Your task to perform on an android device: Search for Mexican restaurants on Maps Image 0: 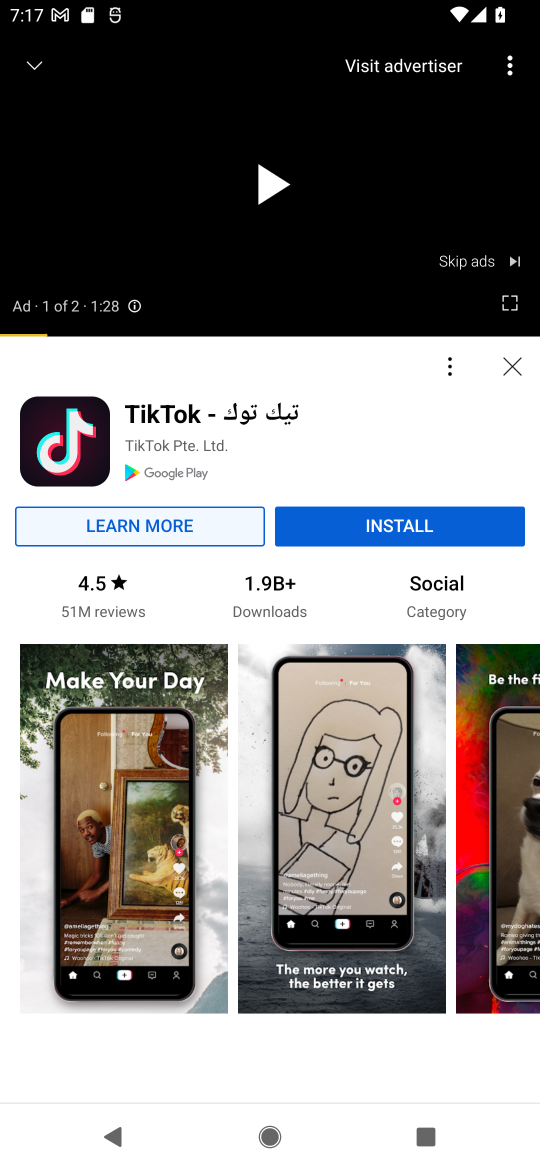
Step 0: press home button
Your task to perform on an android device: Search for Mexican restaurants on Maps Image 1: 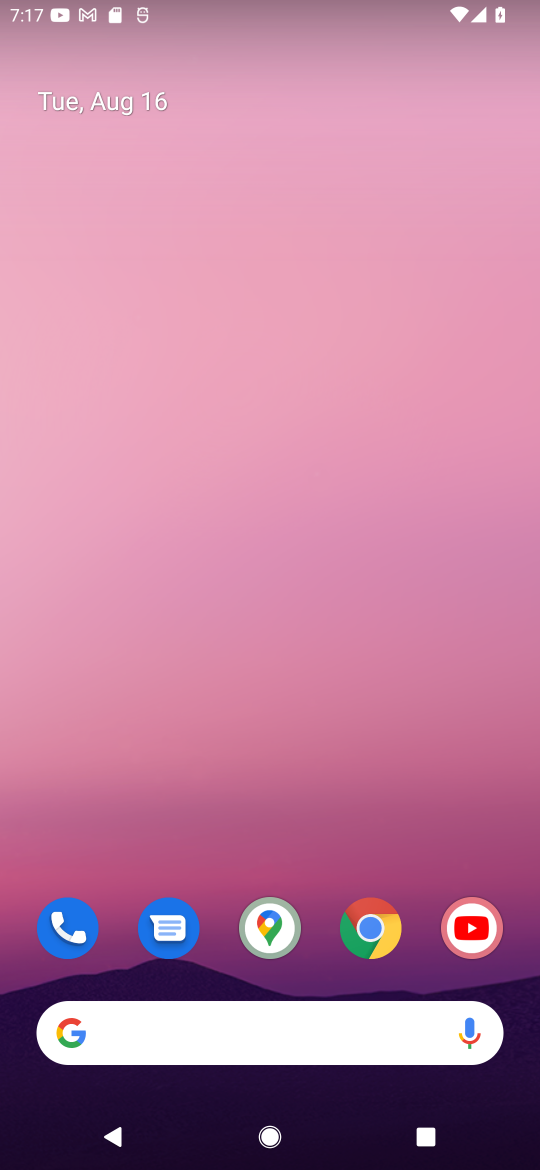
Step 1: drag from (240, 1001) to (300, 90)
Your task to perform on an android device: Search for Mexican restaurants on Maps Image 2: 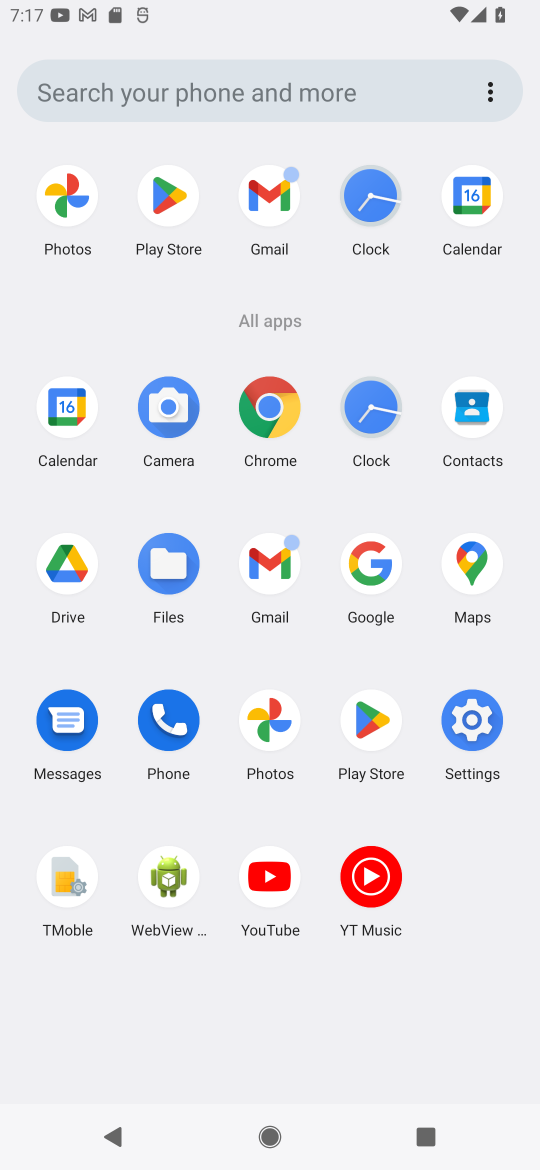
Step 2: click (447, 563)
Your task to perform on an android device: Search for Mexican restaurants on Maps Image 3: 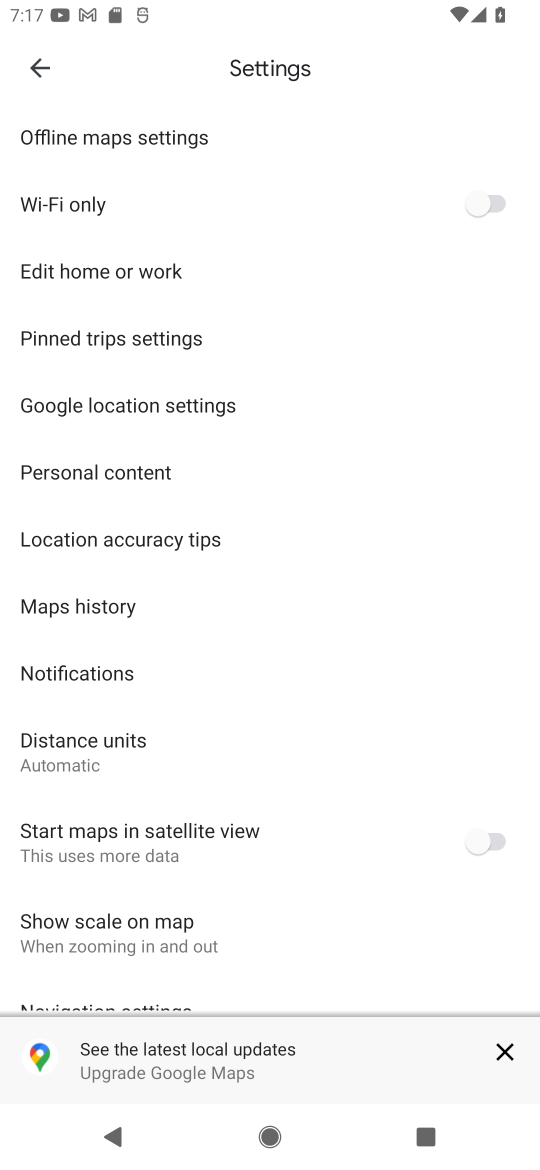
Step 3: click (46, 77)
Your task to perform on an android device: Search for Mexican restaurants on Maps Image 4: 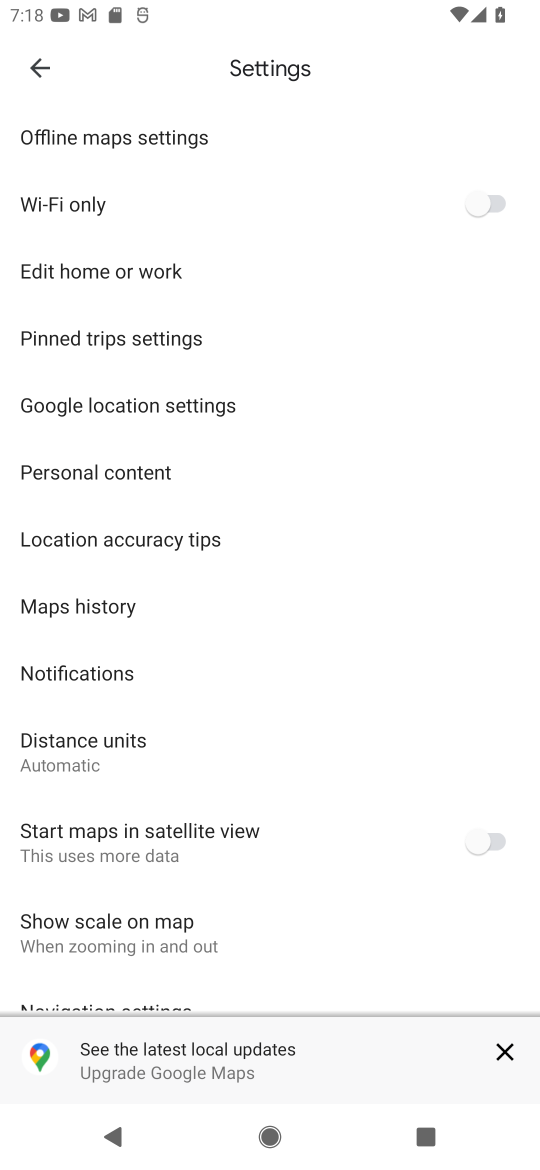
Step 4: click (35, 86)
Your task to perform on an android device: Search for Mexican restaurants on Maps Image 5: 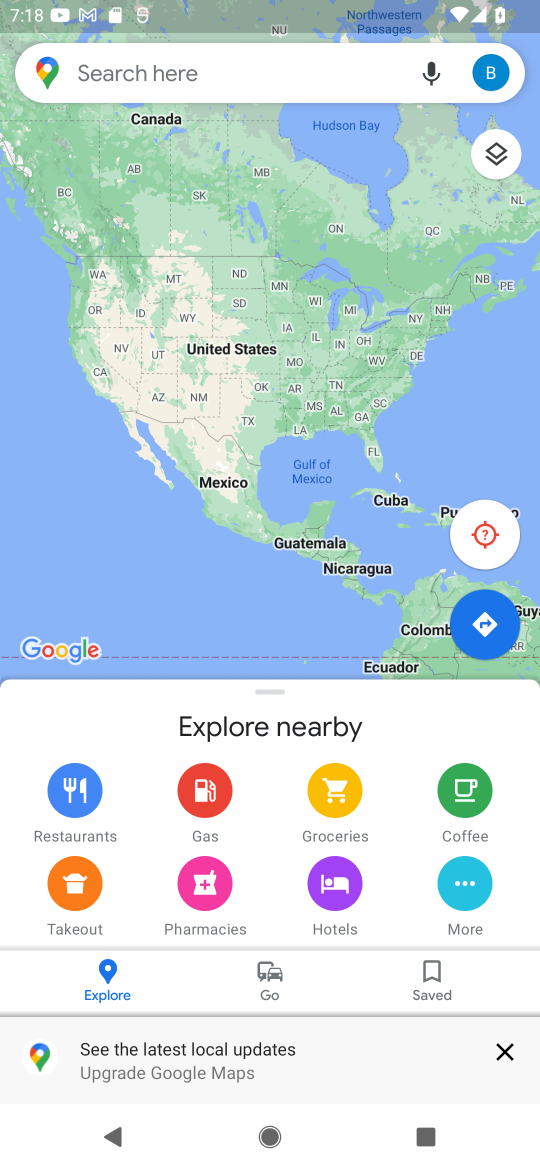
Step 5: click (235, 82)
Your task to perform on an android device: Search for Mexican restaurants on Maps Image 6: 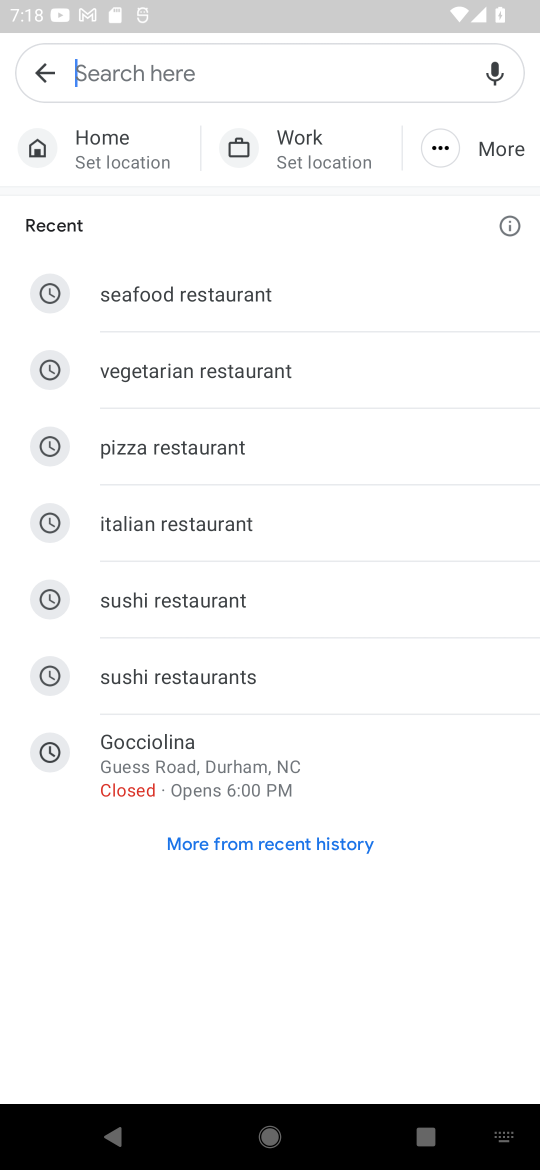
Step 6: type "mexican restaurants"
Your task to perform on an android device: Search for Mexican restaurants on Maps Image 7: 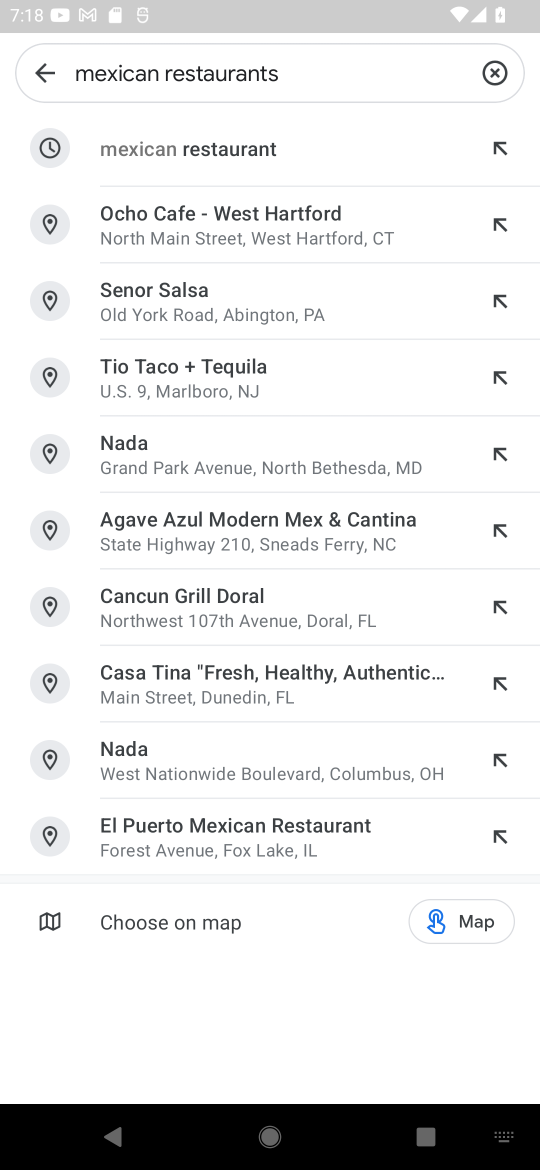
Step 7: click (115, 157)
Your task to perform on an android device: Search for Mexican restaurants on Maps Image 8: 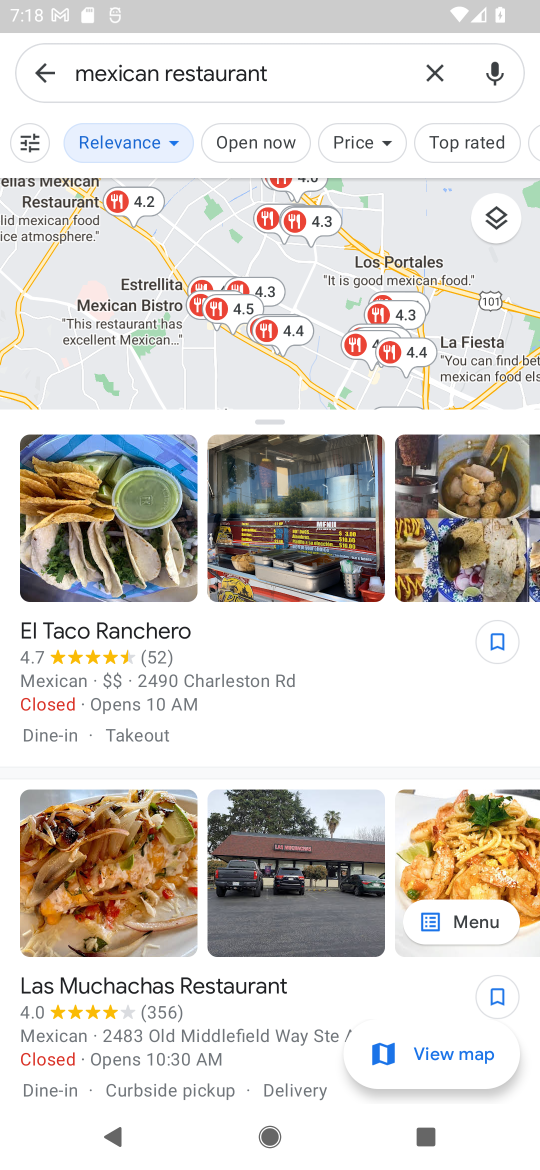
Step 8: task complete